Your task to perform on an android device: allow cookies in the chrome app Image 0: 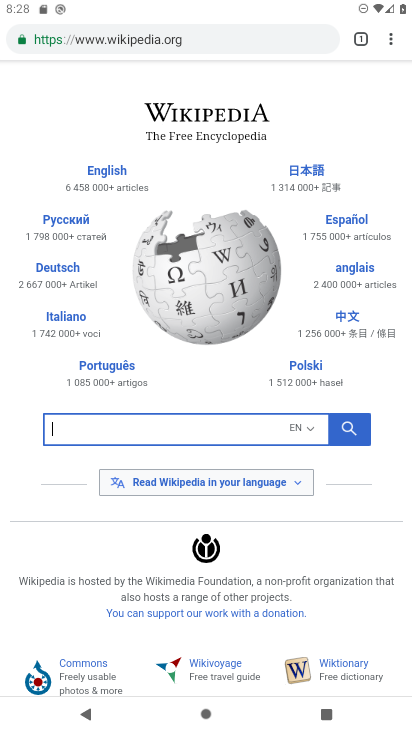
Step 0: click (383, 39)
Your task to perform on an android device: allow cookies in the chrome app Image 1: 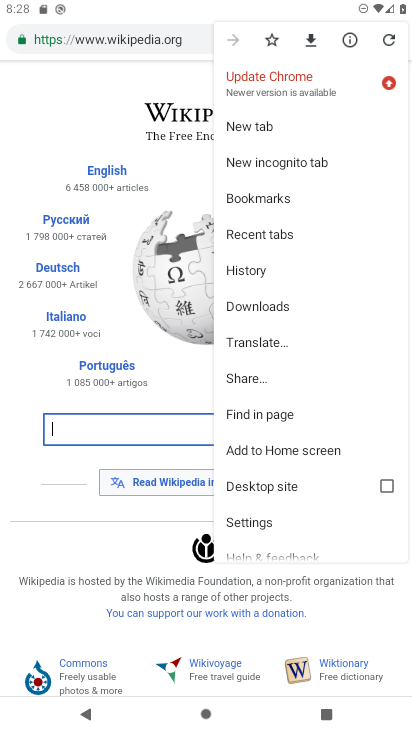
Step 1: click (240, 517)
Your task to perform on an android device: allow cookies in the chrome app Image 2: 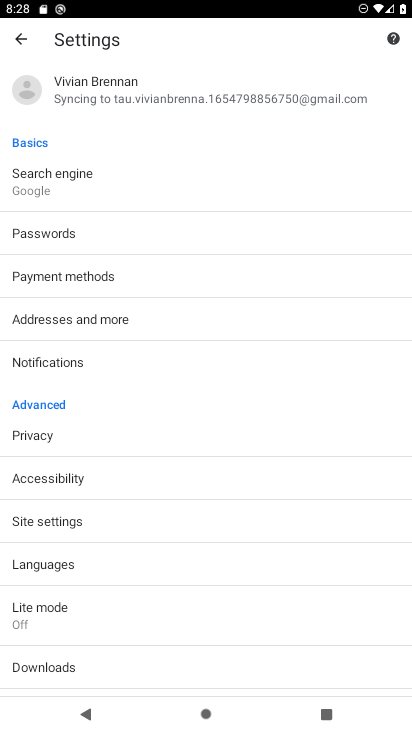
Step 2: click (116, 521)
Your task to perform on an android device: allow cookies in the chrome app Image 3: 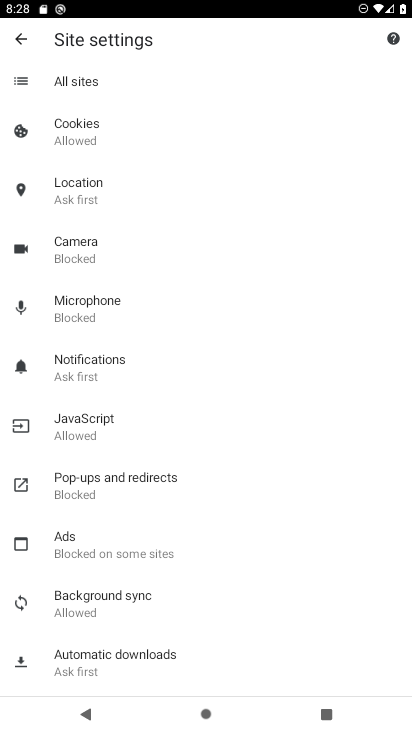
Step 3: click (154, 137)
Your task to perform on an android device: allow cookies in the chrome app Image 4: 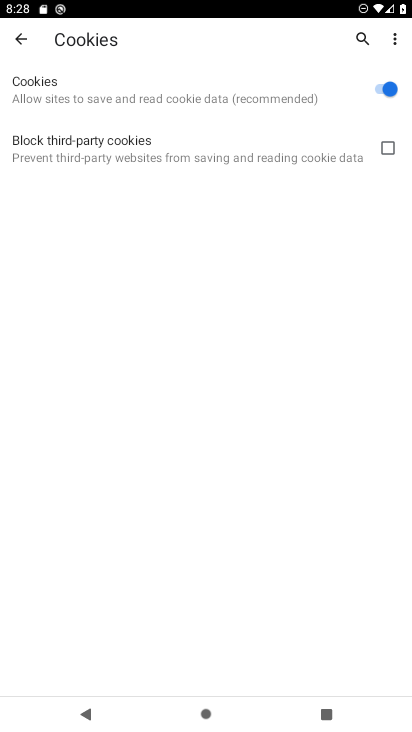
Step 4: task complete